Your task to perform on an android device: Open notification settings Image 0: 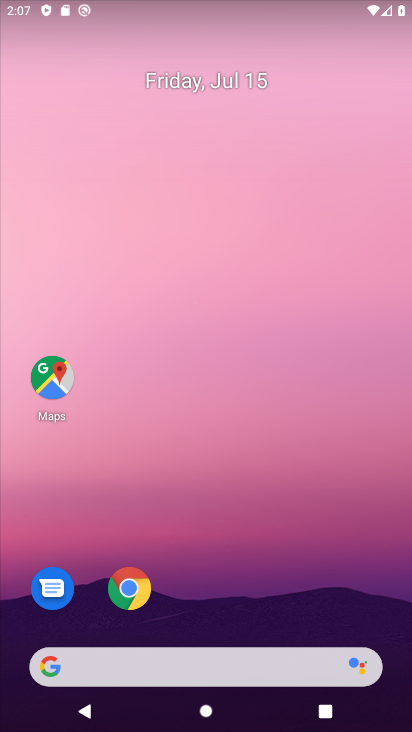
Step 0: drag from (305, 608) to (154, 147)
Your task to perform on an android device: Open notification settings Image 1: 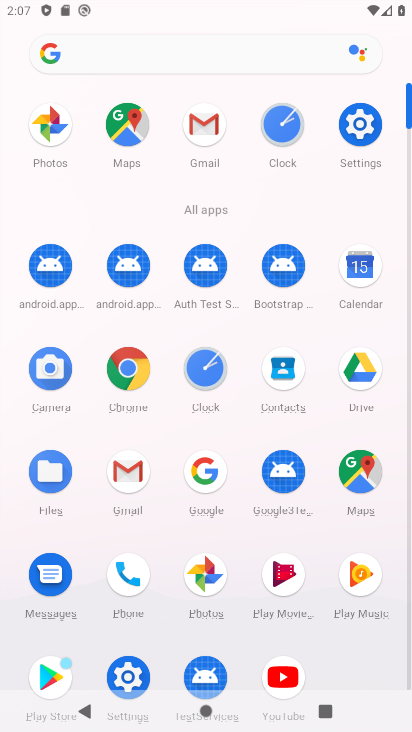
Step 1: click (362, 146)
Your task to perform on an android device: Open notification settings Image 2: 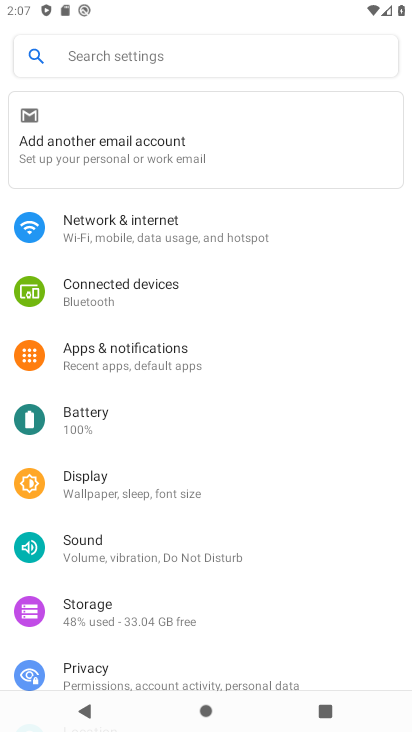
Step 2: click (157, 354)
Your task to perform on an android device: Open notification settings Image 3: 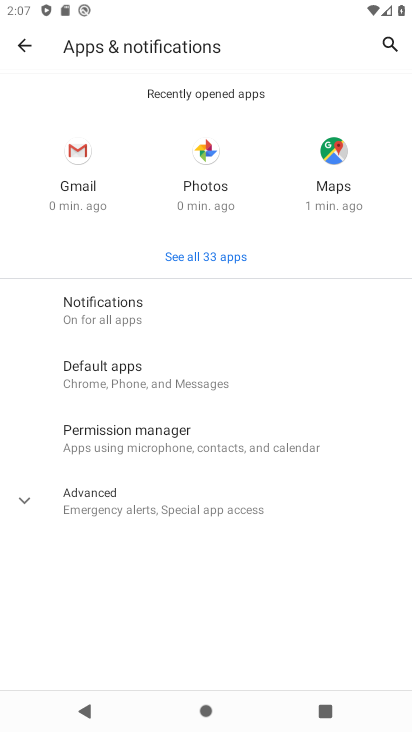
Step 3: click (110, 309)
Your task to perform on an android device: Open notification settings Image 4: 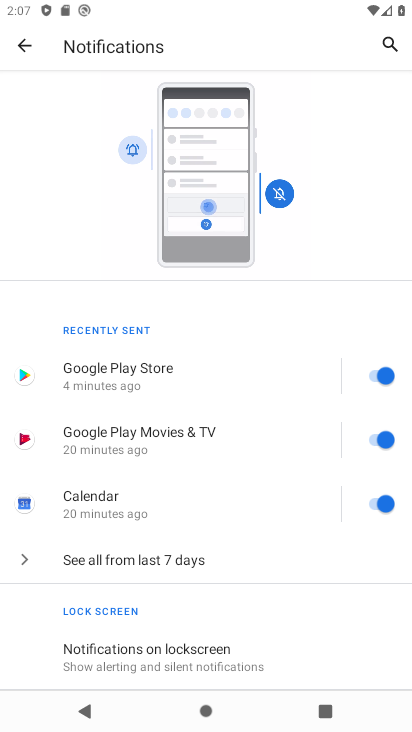
Step 4: task complete